Your task to perform on an android device: open a new tab in the chrome app Image 0: 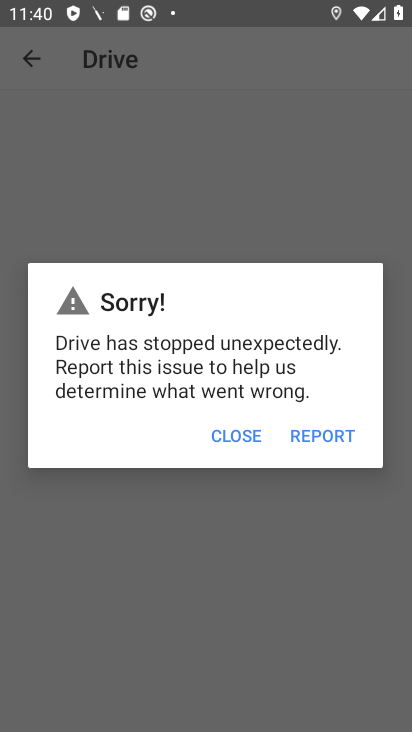
Step 0: press home button
Your task to perform on an android device: open a new tab in the chrome app Image 1: 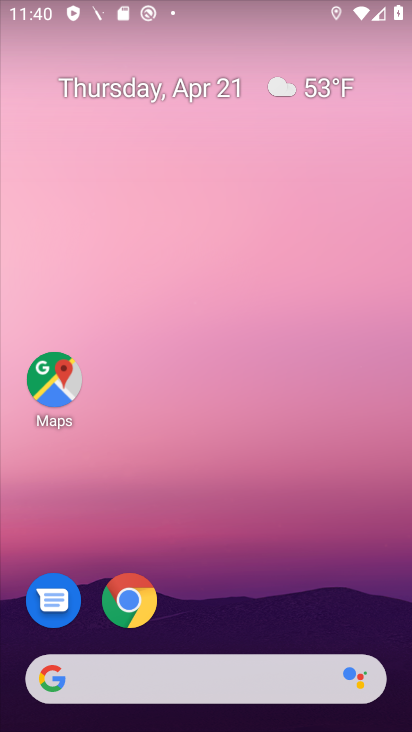
Step 1: drag from (288, 603) to (282, 446)
Your task to perform on an android device: open a new tab in the chrome app Image 2: 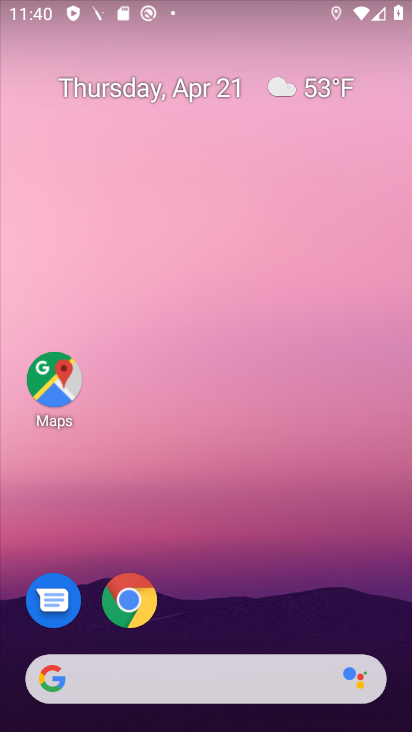
Step 2: click (148, 607)
Your task to perform on an android device: open a new tab in the chrome app Image 3: 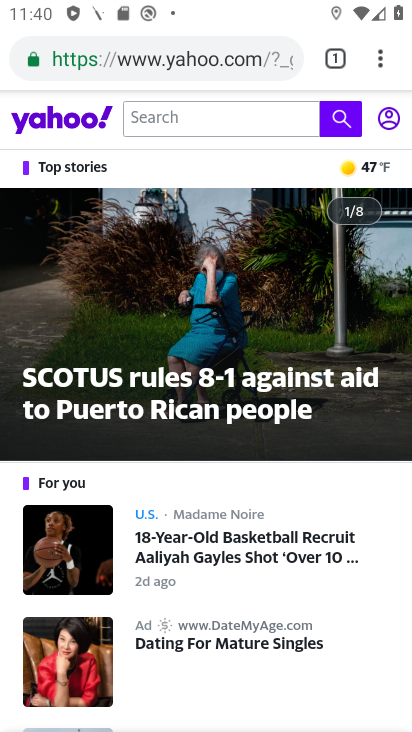
Step 3: click (338, 57)
Your task to perform on an android device: open a new tab in the chrome app Image 4: 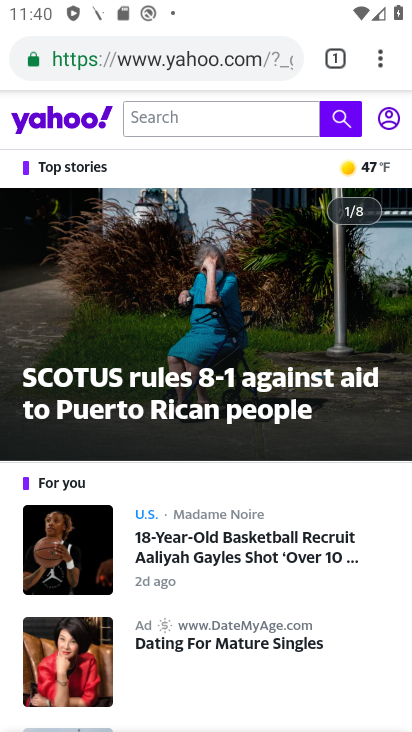
Step 4: click (337, 59)
Your task to perform on an android device: open a new tab in the chrome app Image 5: 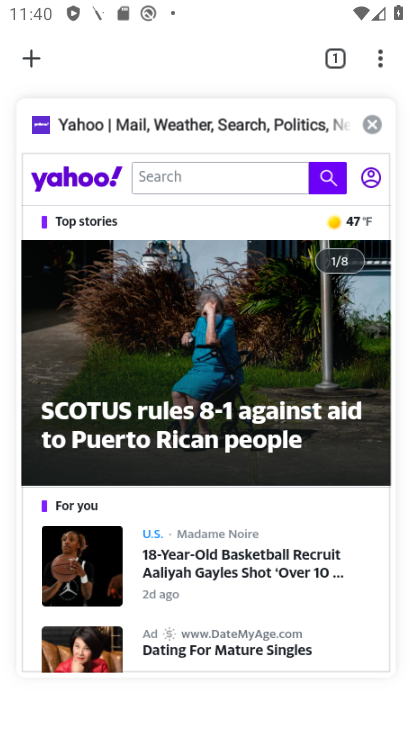
Step 5: click (28, 65)
Your task to perform on an android device: open a new tab in the chrome app Image 6: 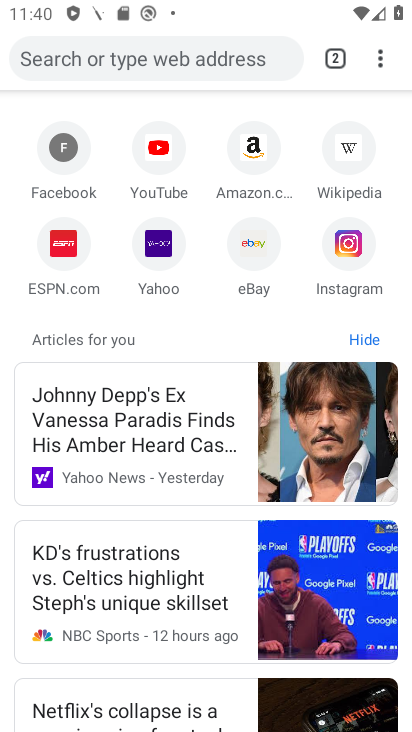
Step 6: task complete